Your task to perform on an android device: toggle notification dots Image 0: 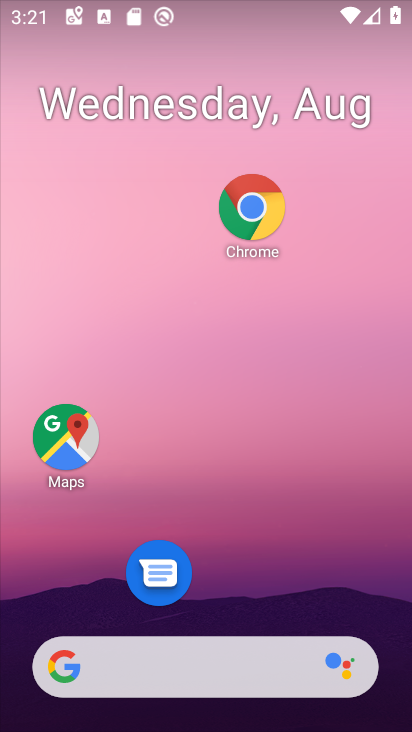
Step 0: drag from (239, 555) to (243, 0)
Your task to perform on an android device: toggle notification dots Image 1: 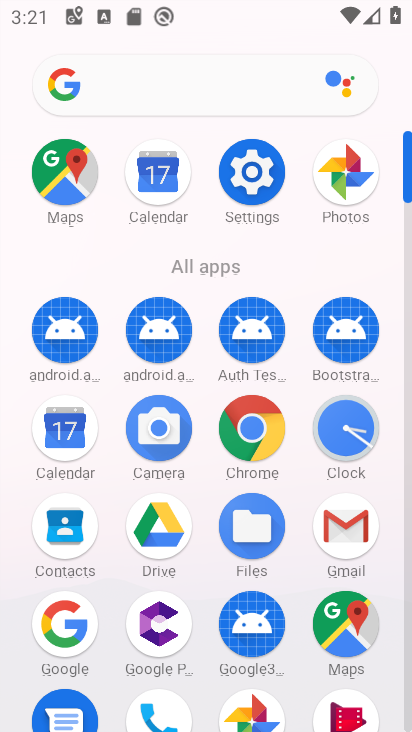
Step 1: click (245, 165)
Your task to perform on an android device: toggle notification dots Image 2: 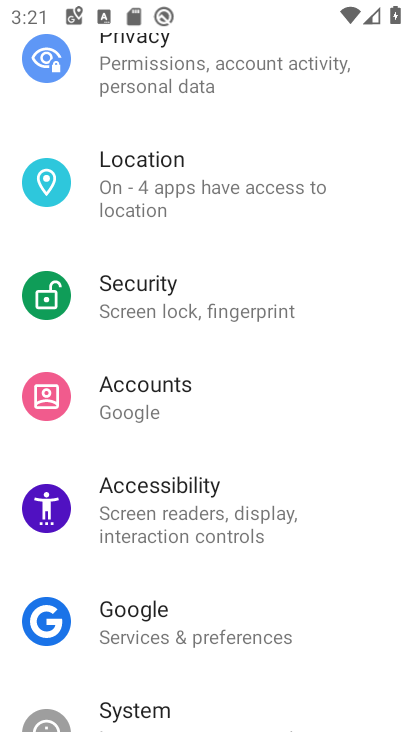
Step 2: drag from (249, 337) to (230, 607)
Your task to perform on an android device: toggle notification dots Image 3: 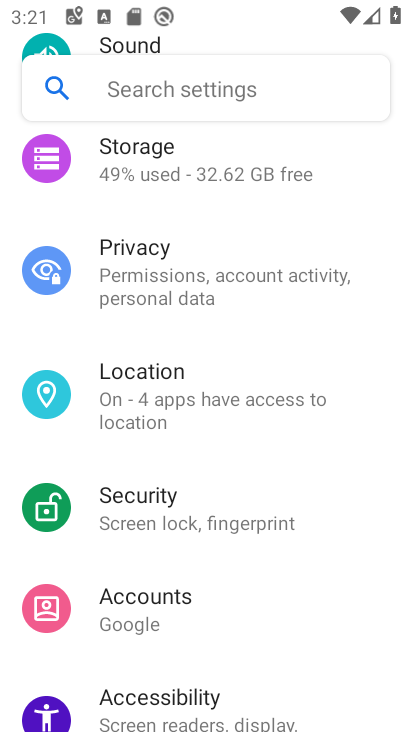
Step 3: drag from (235, 242) to (243, 658)
Your task to perform on an android device: toggle notification dots Image 4: 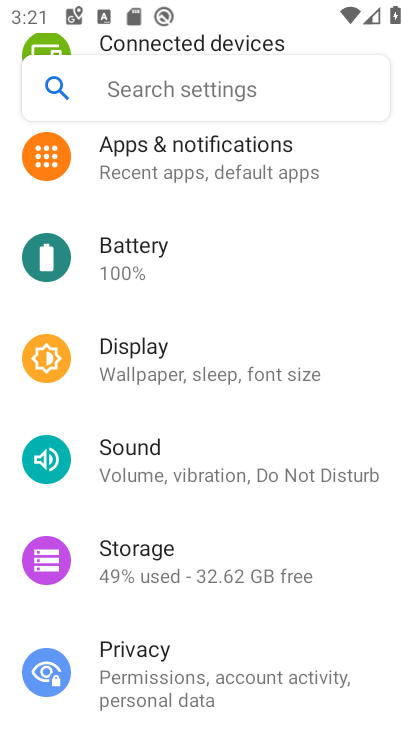
Step 4: drag from (234, 303) to (235, 607)
Your task to perform on an android device: toggle notification dots Image 5: 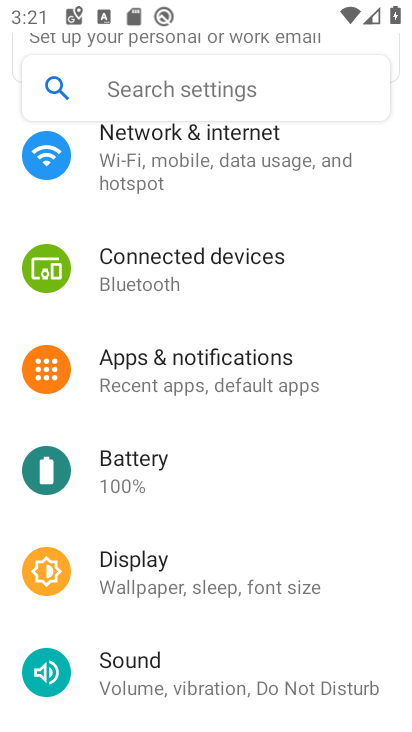
Step 5: click (248, 362)
Your task to perform on an android device: toggle notification dots Image 6: 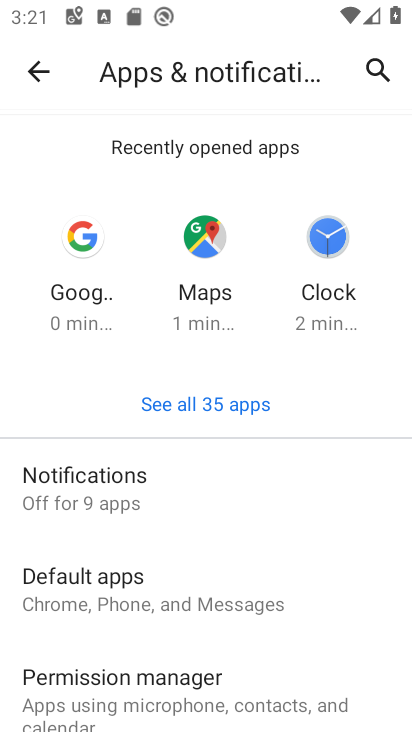
Step 6: click (137, 494)
Your task to perform on an android device: toggle notification dots Image 7: 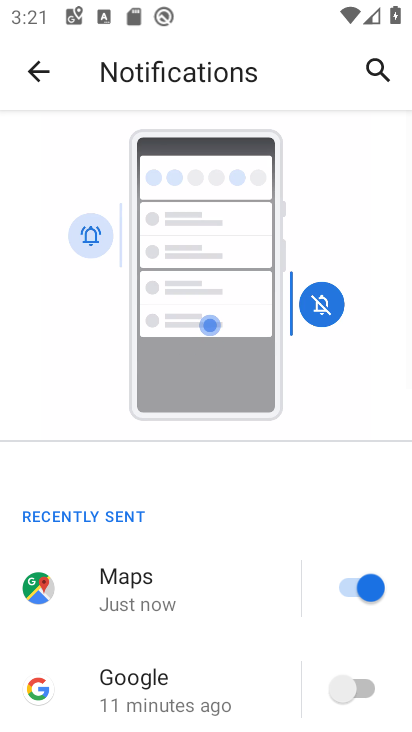
Step 7: drag from (223, 628) to (219, 0)
Your task to perform on an android device: toggle notification dots Image 8: 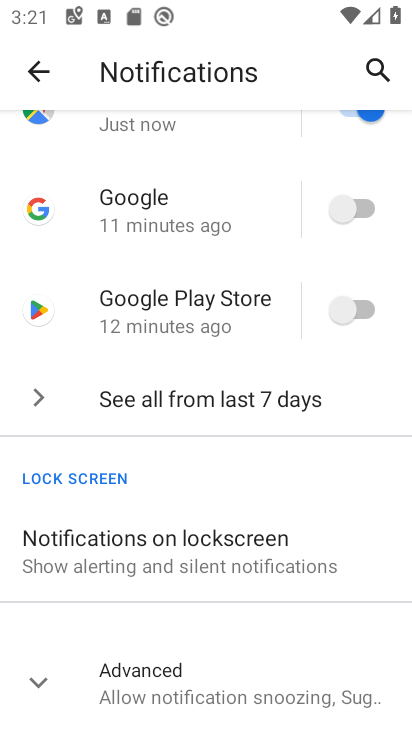
Step 8: click (36, 680)
Your task to perform on an android device: toggle notification dots Image 9: 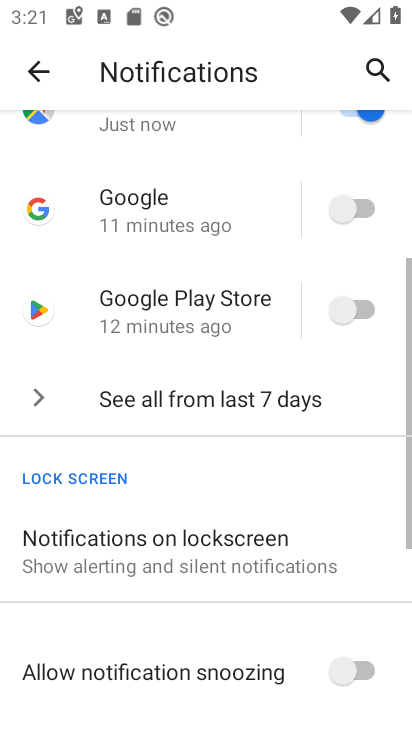
Step 9: drag from (234, 615) to (273, 15)
Your task to perform on an android device: toggle notification dots Image 10: 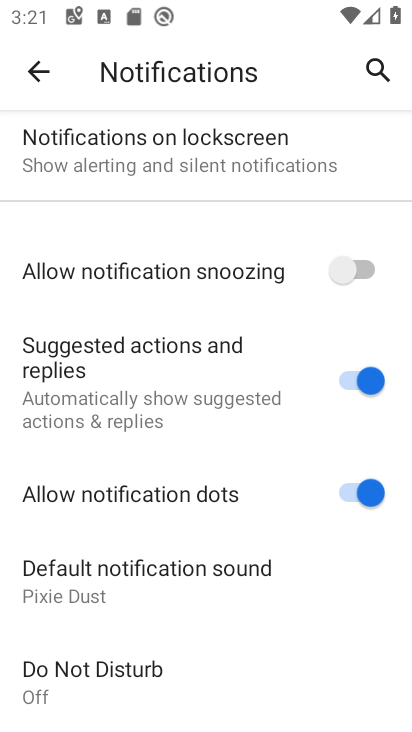
Step 10: click (369, 493)
Your task to perform on an android device: toggle notification dots Image 11: 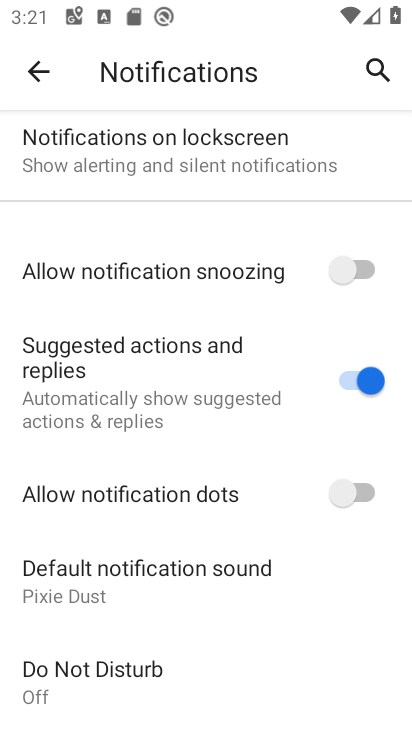
Step 11: task complete